Your task to perform on an android device: install app "WhatsApp Messenger" Image 0: 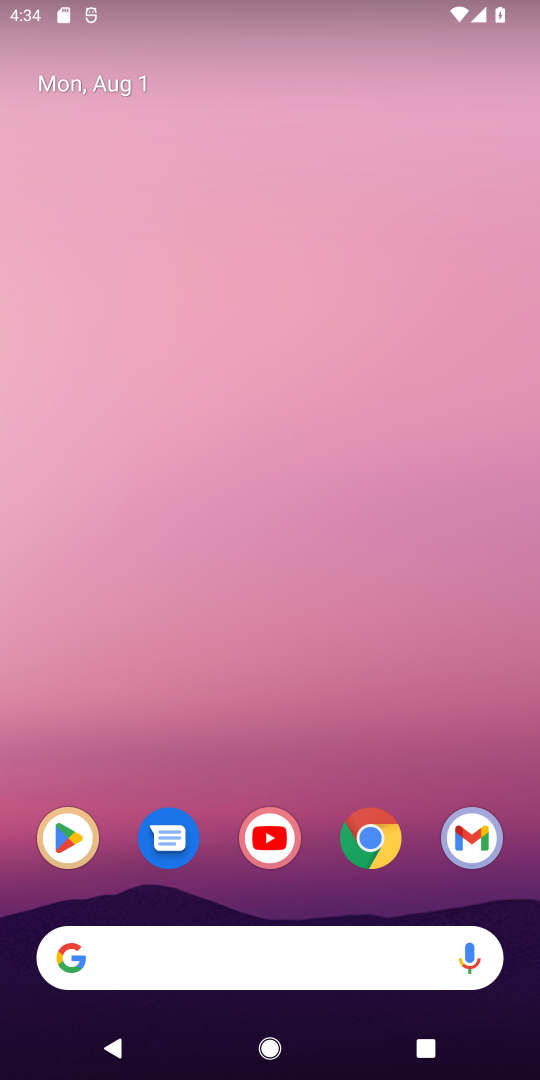
Step 0: click (72, 817)
Your task to perform on an android device: install app "WhatsApp Messenger" Image 1: 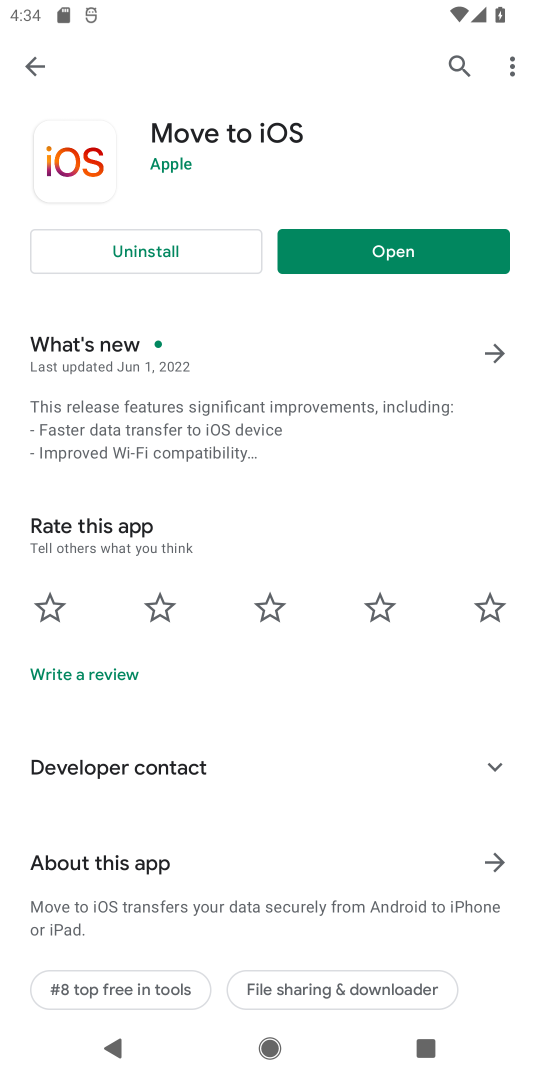
Step 1: click (463, 63)
Your task to perform on an android device: install app "WhatsApp Messenger" Image 2: 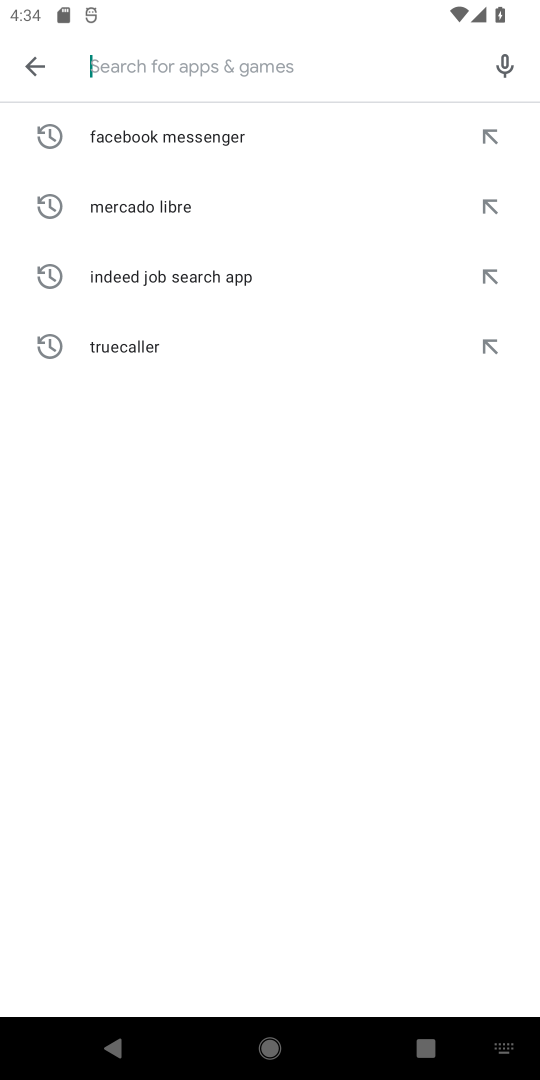
Step 2: click (449, 76)
Your task to perform on an android device: install app "WhatsApp Messenger" Image 3: 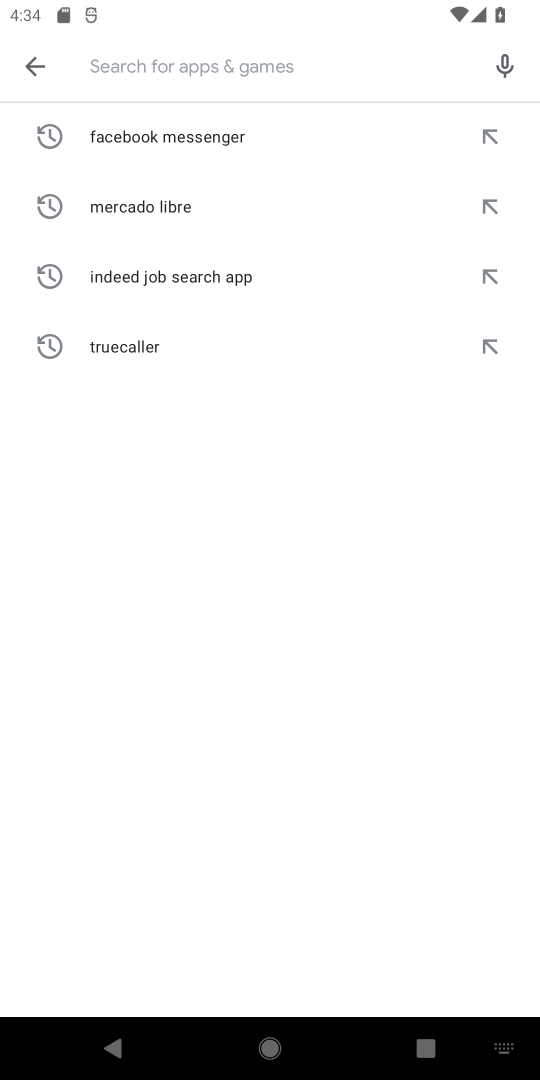
Step 3: type "WhatsApp Messenger"
Your task to perform on an android device: install app "WhatsApp Messenger" Image 4: 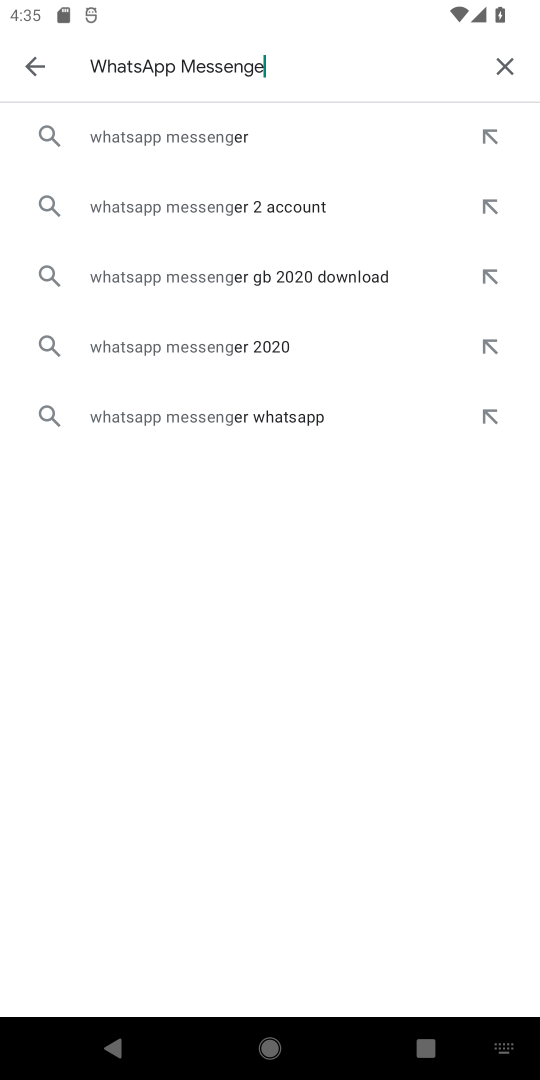
Step 4: type ""
Your task to perform on an android device: install app "WhatsApp Messenger" Image 5: 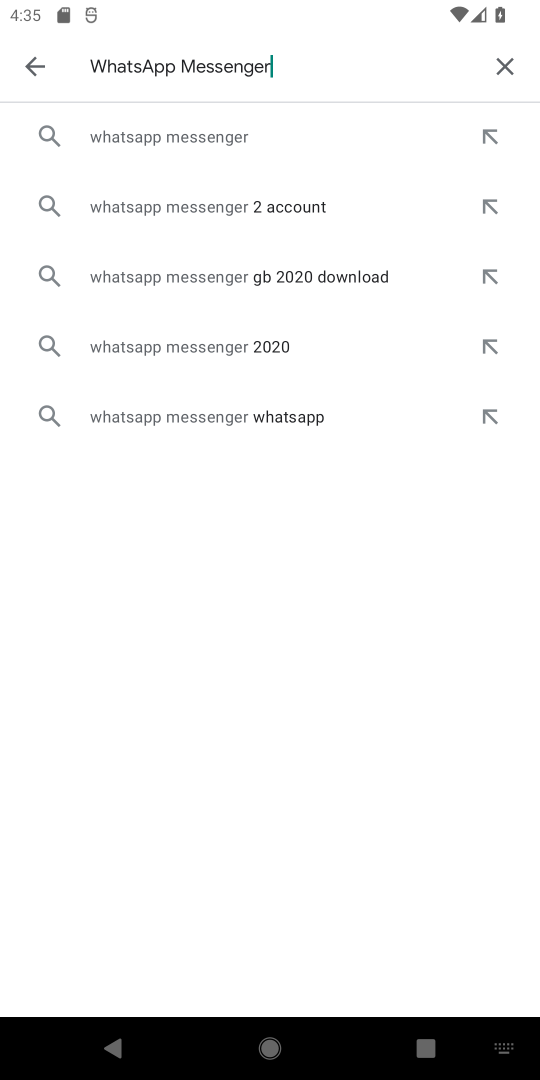
Step 5: click (214, 140)
Your task to perform on an android device: install app "WhatsApp Messenger" Image 6: 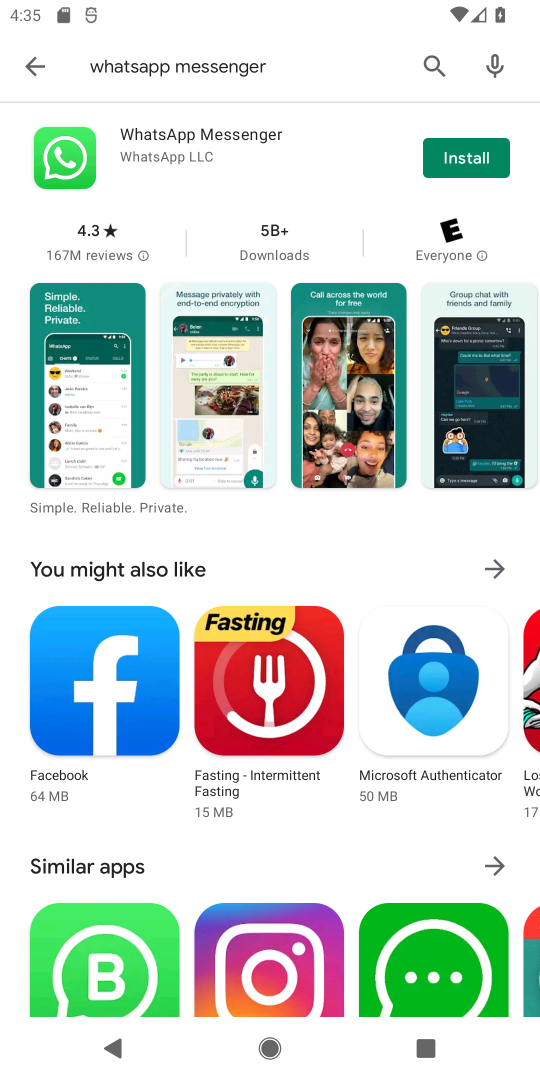
Step 6: click (438, 168)
Your task to perform on an android device: install app "WhatsApp Messenger" Image 7: 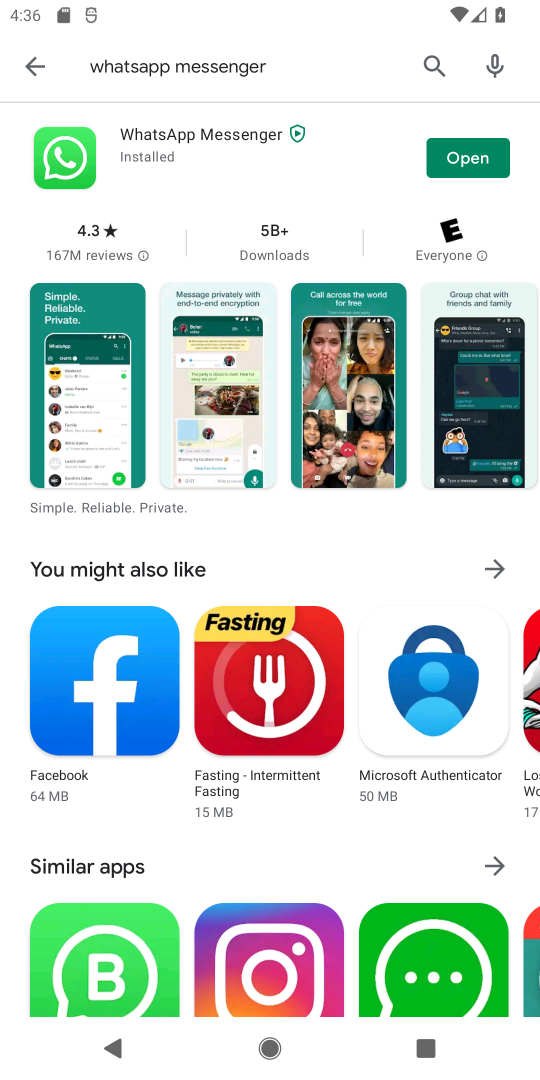
Step 7: task complete